Your task to perform on an android device: When is my next appointment? Image 0: 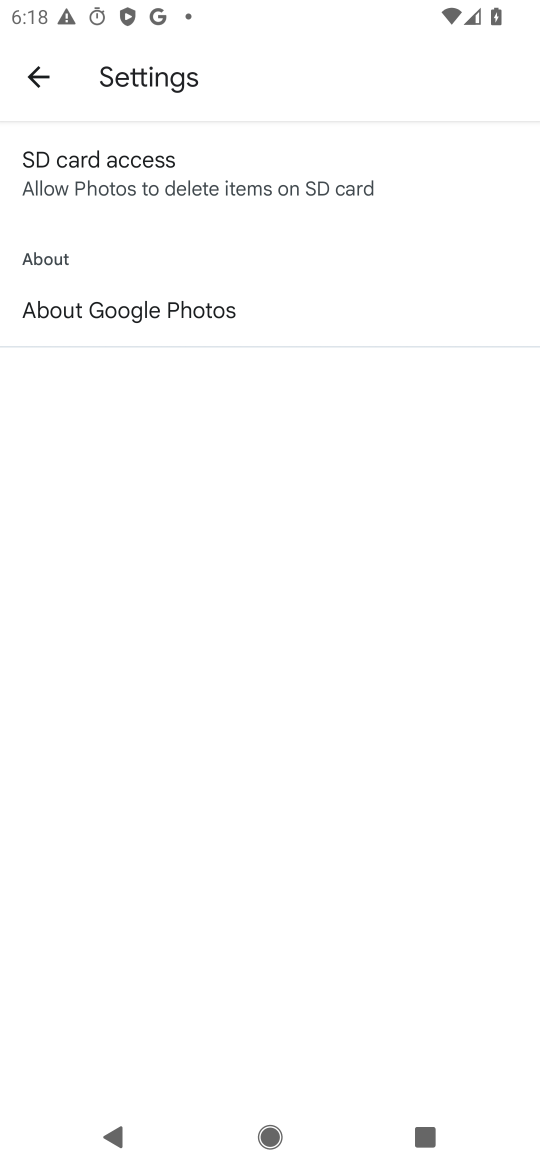
Step 0: press home button
Your task to perform on an android device: When is my next appointment? Image 1: 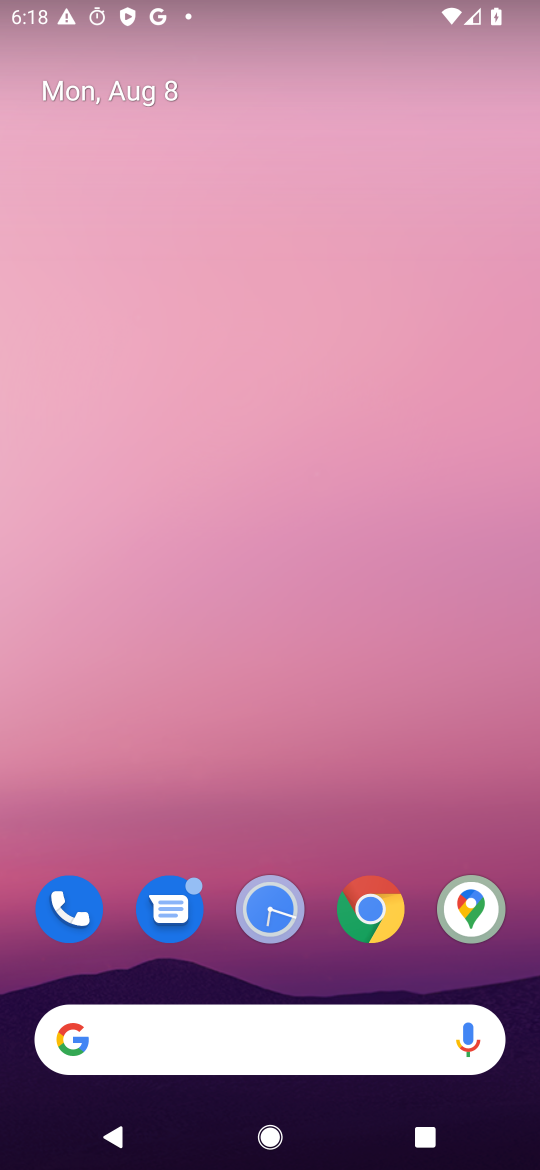
Step 1: drag from (201, 919) to (394, 297)
Your task to perform on an android device: When is my next appointment? Image 2: 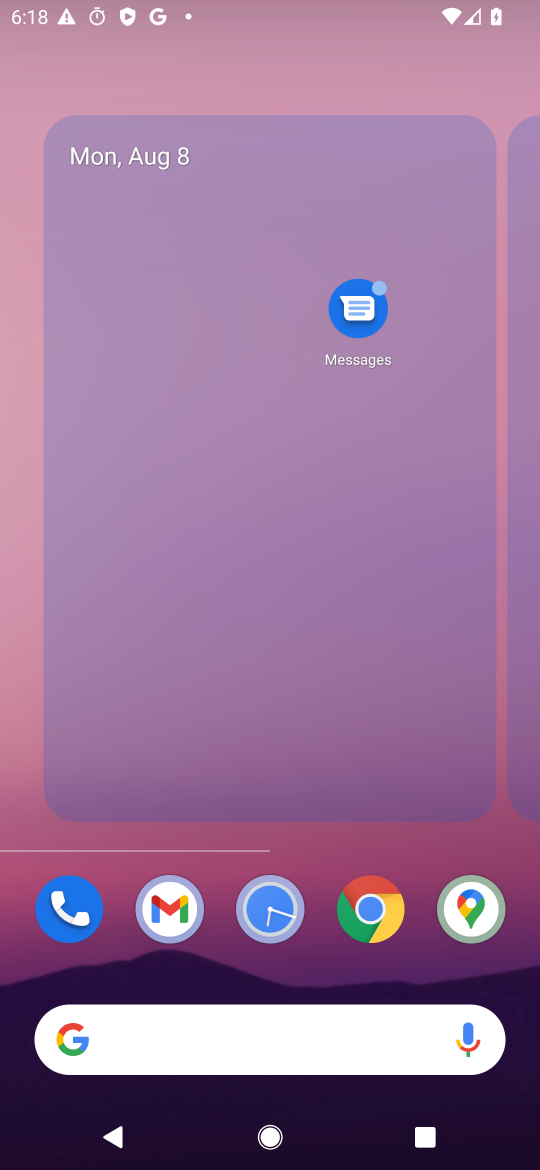
Step 2: drag from (243, 1028) to (453, 1)
Your task to perform on an android device: When is my next appointment? Image 3: 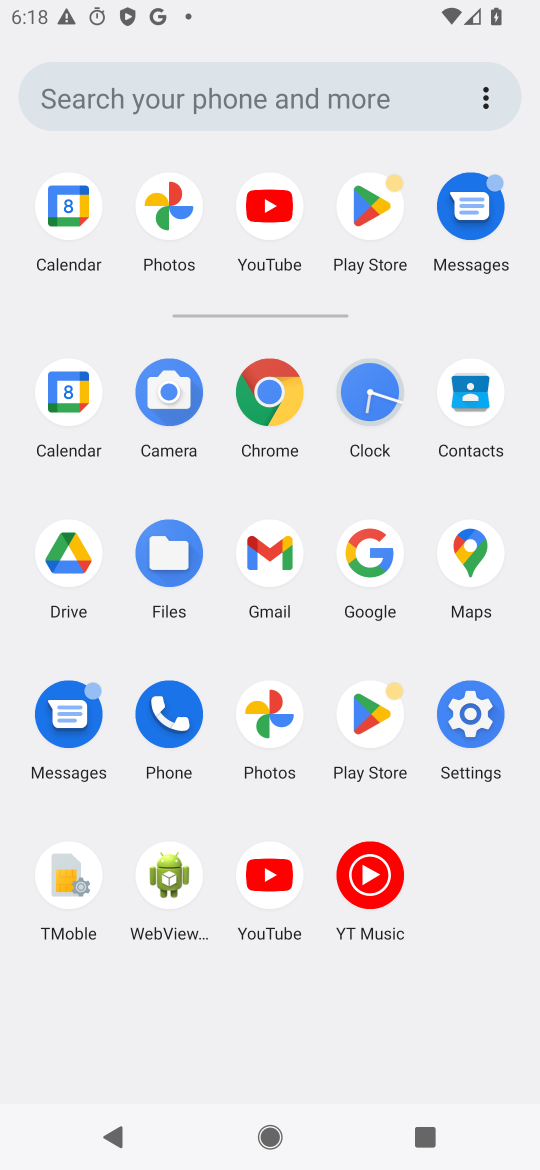
Step 3: click (72, 211)
Your task to perform on an android device: When is my next appointment? Image 4: 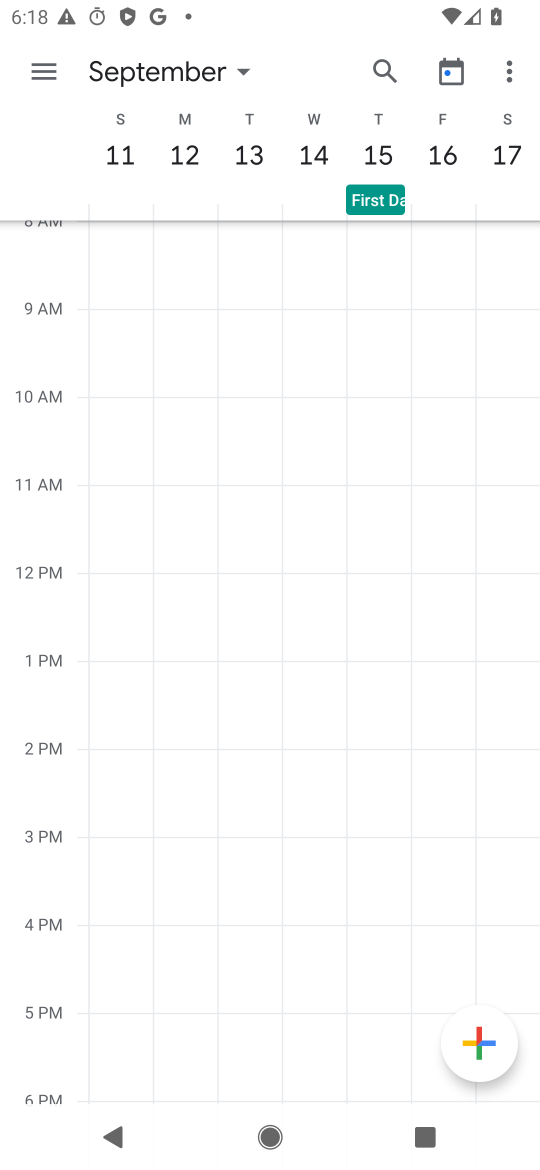
Step 4: click (123, 67)
Your task to perform on an android device: When is my next appointment? Image 5: 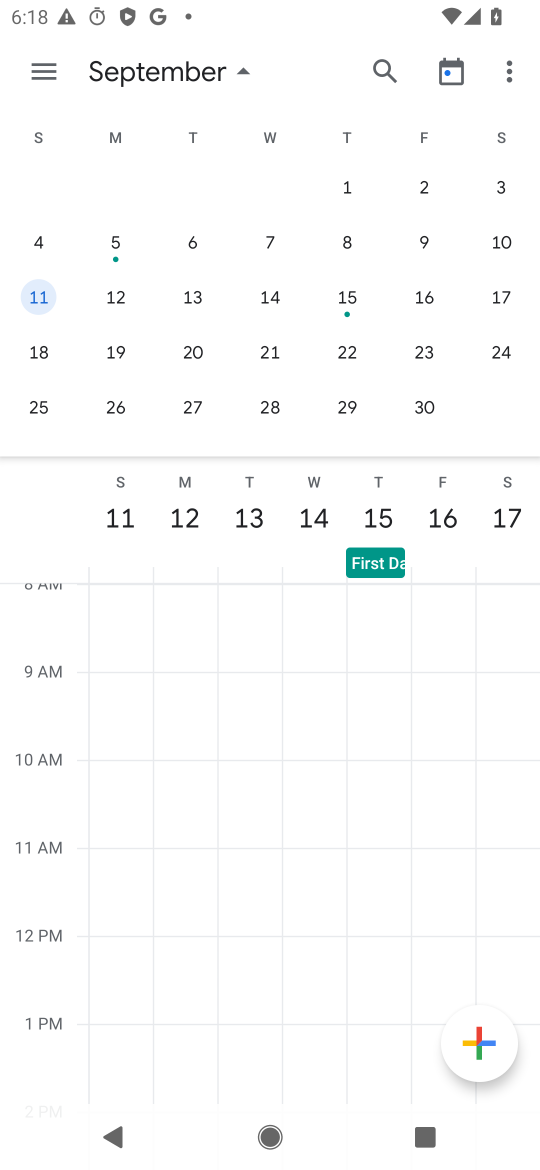
Step 5: drag from (113, 330) to (539, 360)
Your task to perform on an android device: When is my next appointment? Image 6: 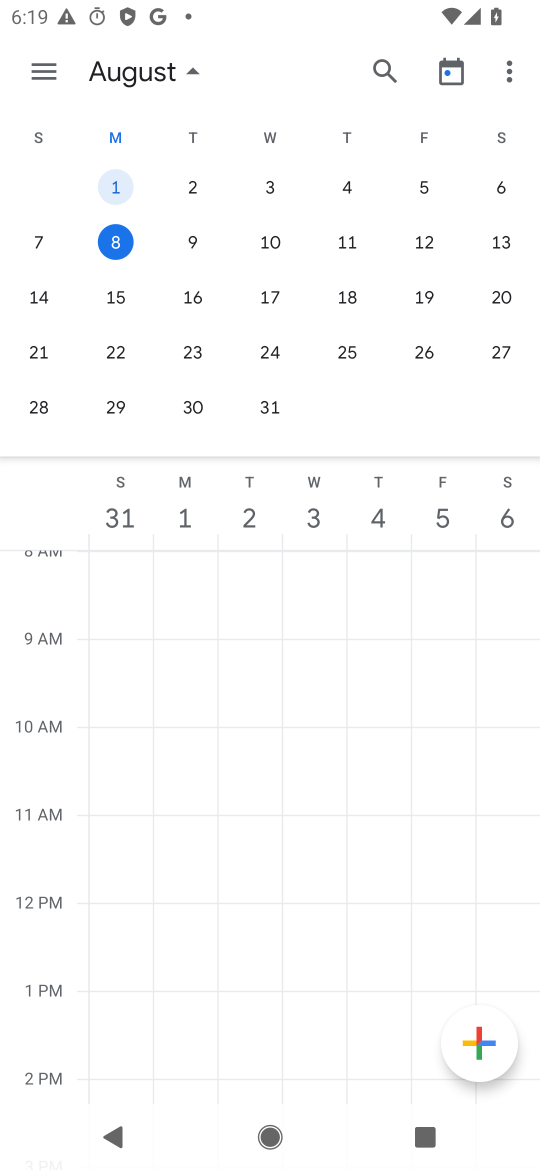
Step 6: drag from (79, 243) to (370, 288)
Your task to perform on an android device: When is my next appointment? Image 7: 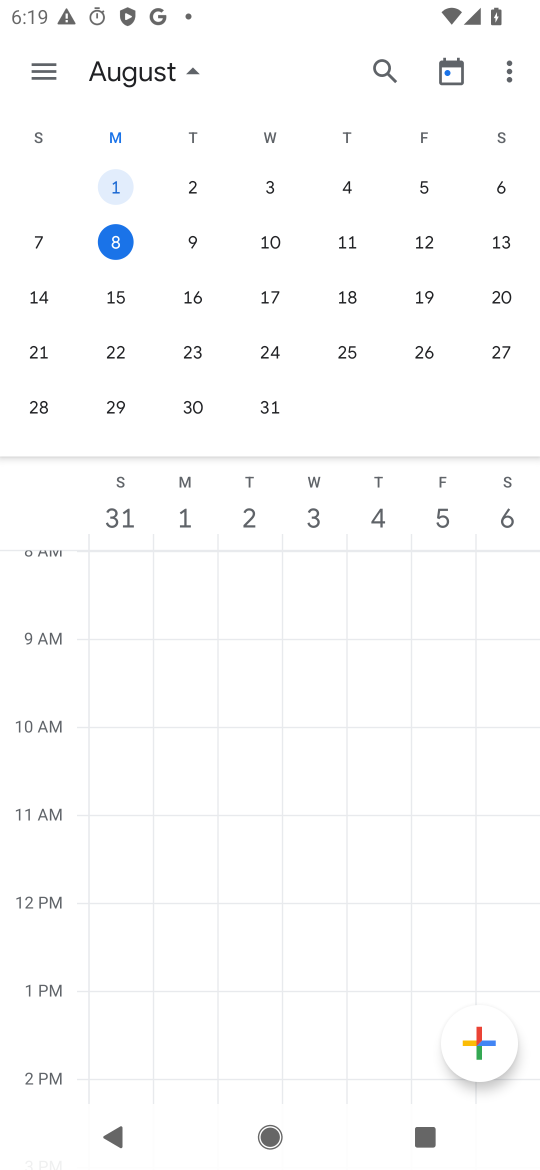
Step 7: click (41, 244)
Your task to perform on an android device: When is my next appointment? Image 8: 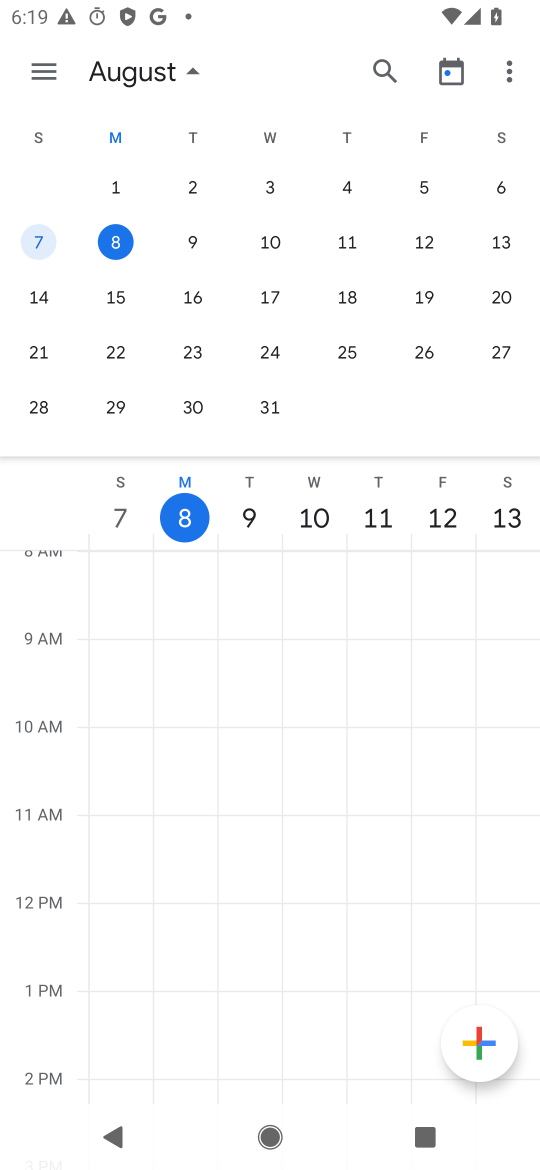
Step 8: click (32, 69)
Your task to perform on an android device: When is my next appointment? Image 9: 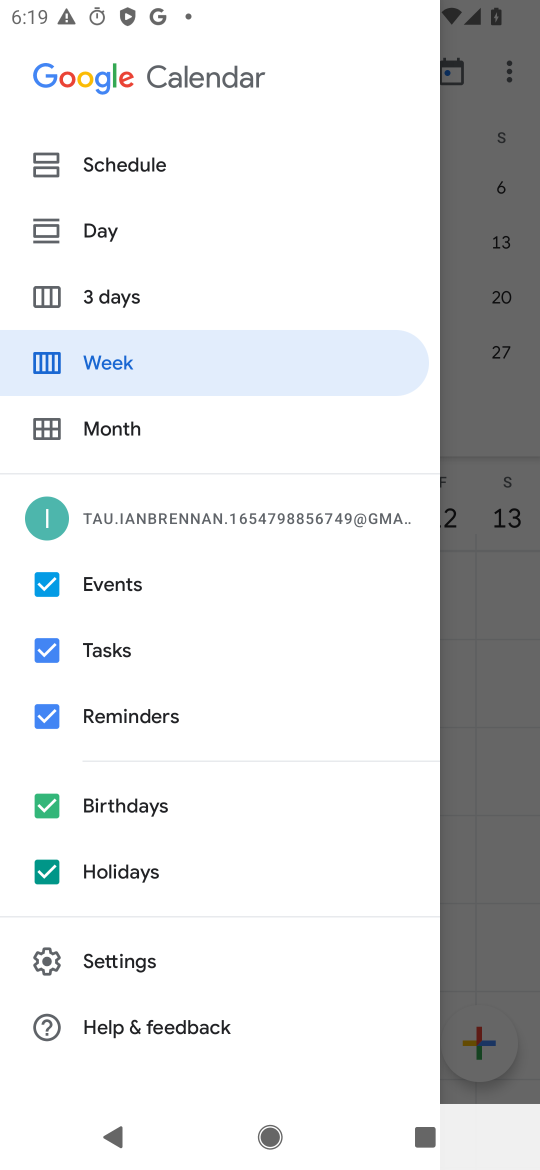
Step 9: click (161, 158)
Your task to perform on an android device: When is my next appointment? Image 10: 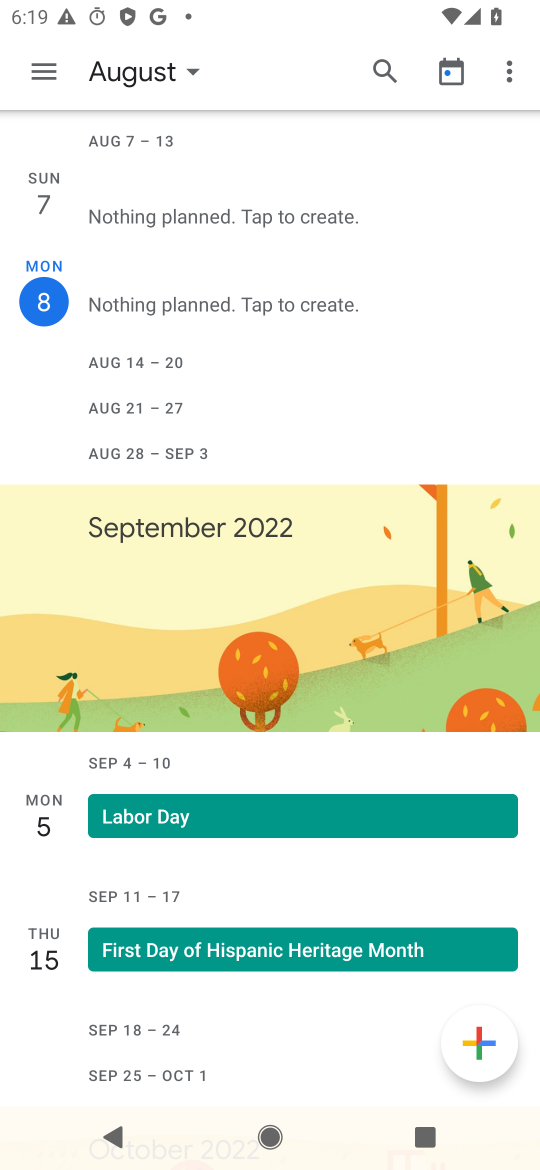
Step 10: task complete